Your task to perform on an android device: Show me the alarms in the clock app Image 0: 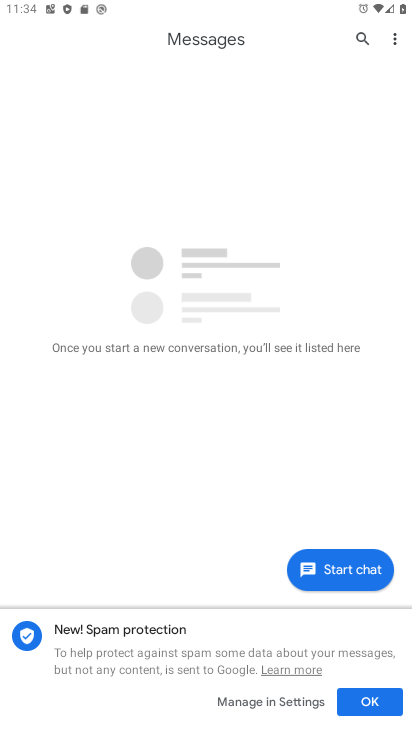
Step 0: press home button
Your task to perform on an android device: Show me the alarms in the clock app Image 1: 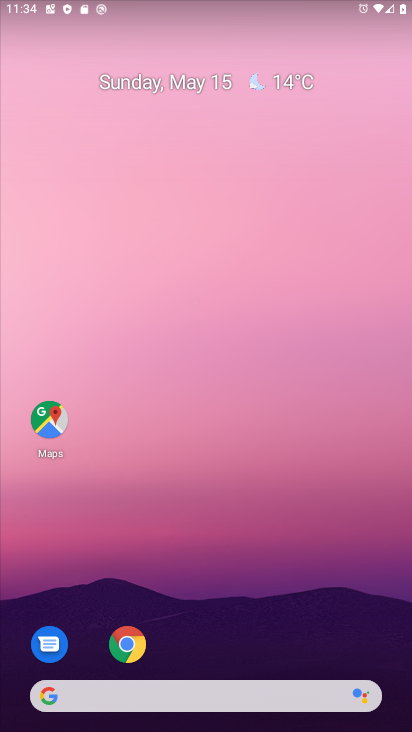
Step 1: drag from (295, 573) to (170, 44)
Your task to perform on an android device: Show me the alarms in the clock app Image 2: 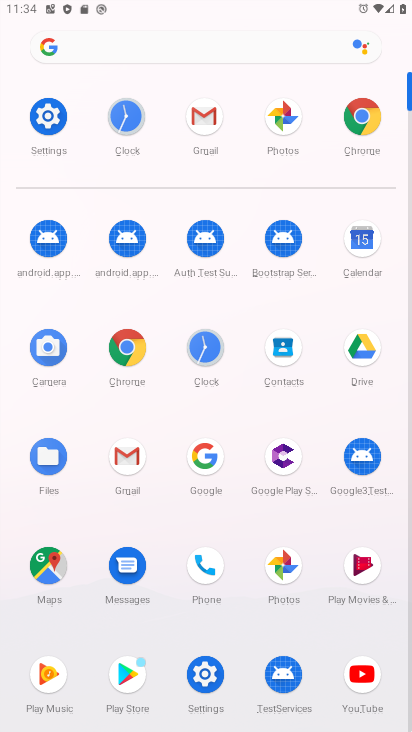
Step 2: click (120, 126)
Your task to perform on an android device: Show me the alarms in the clock app Image 3: 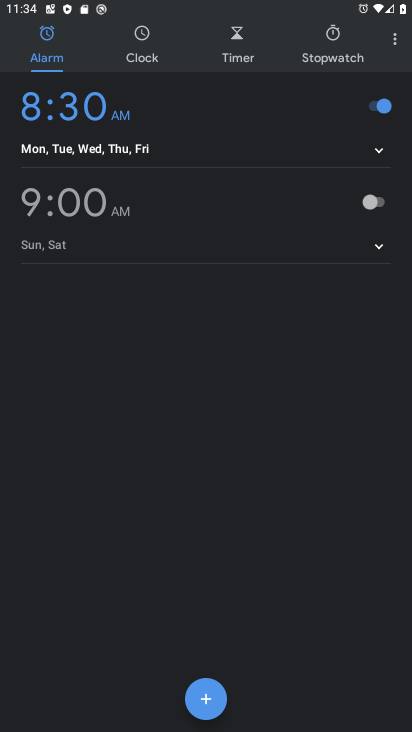
Step 3: task complete